Your task to perform on an android device: change keyboard looks Image 0: 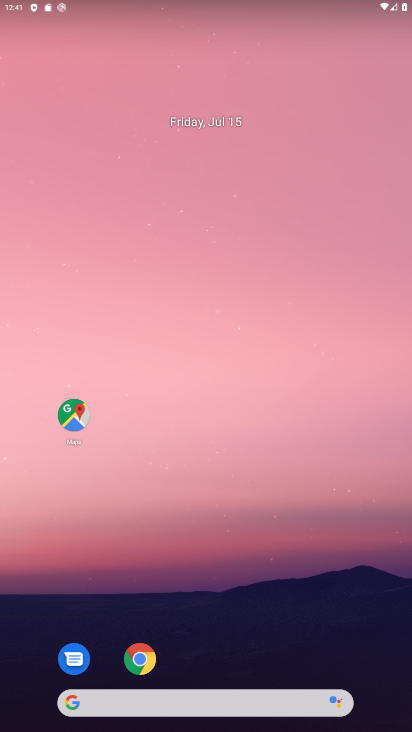
Step 0: drag from (201, 660) to (219, 159)
Your task to perform on an android device: change keyboard looks Image 1: 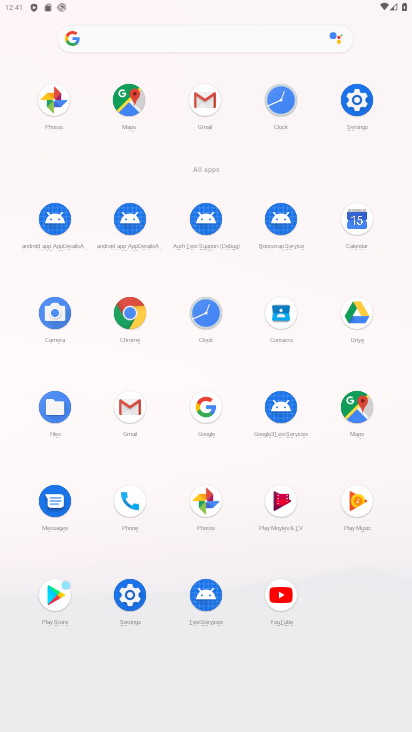
Step 1: click (357, 100)
Your task to perform on an android device: change keyboard looks Image 2: 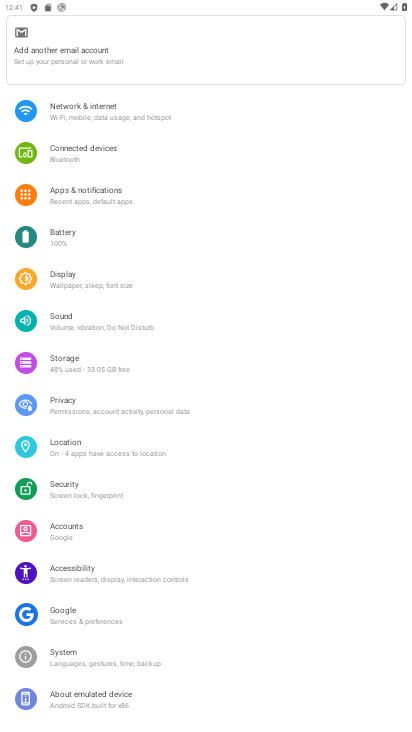
Step 2: click (75, 665)
Your task to perform on an android device: change keyboard looks Image 3: 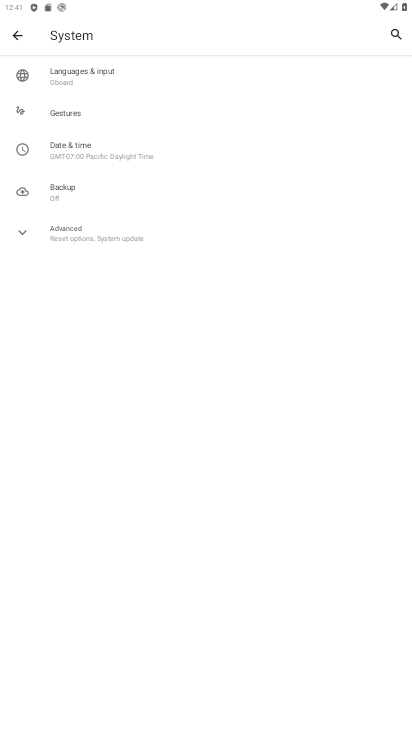
Step 3: click (91, 82)
Your task to perform on an android device: change keyboard looks Image 4: 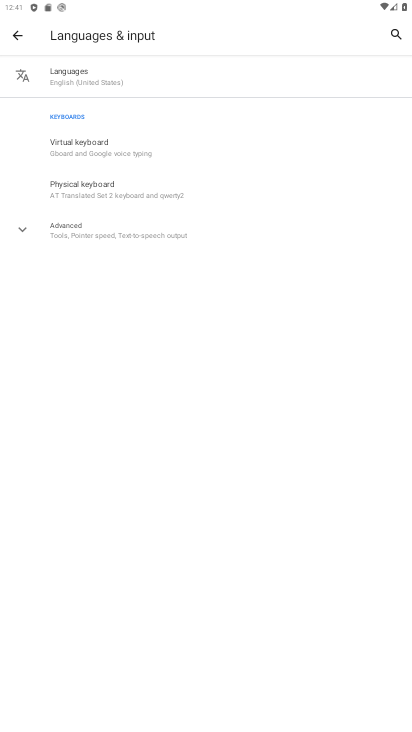
Step 4: click (91, 141)
Your task to perform on an android device: change keyboard looks Image 5: 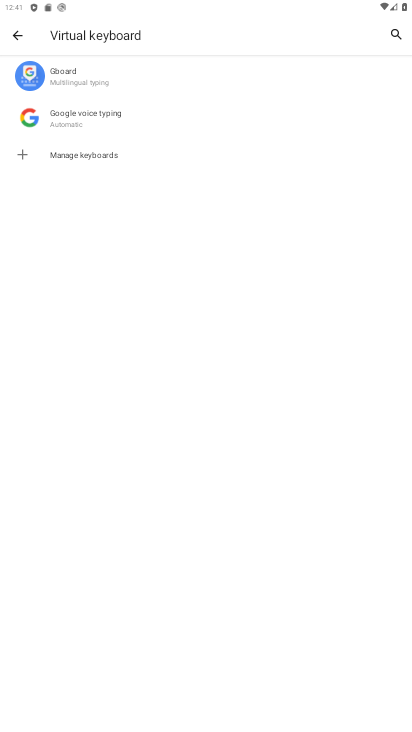
Step 5: click (83, 79)
Your task to perform on an android device: change keyboard looks Image 6: 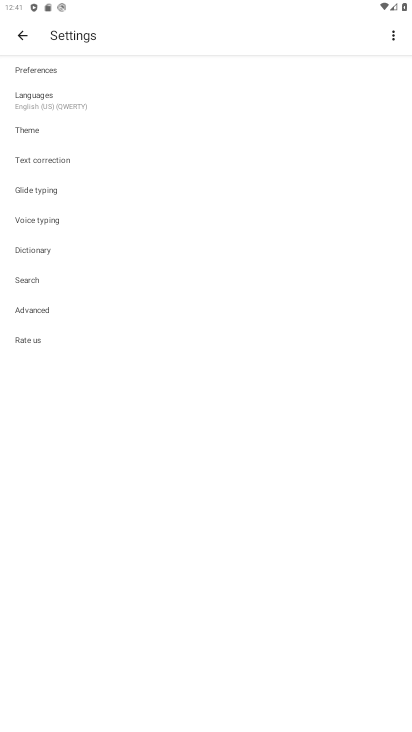
Step 6: click (42, 140)
Your task to perform on an android device: change keyboard looks Image 7: 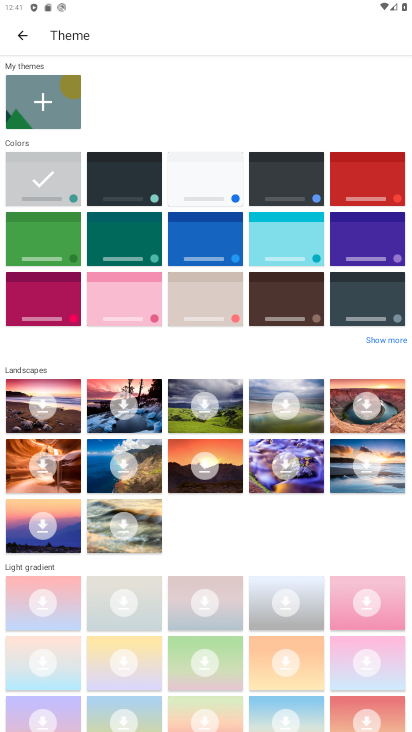
Step 7: click (118, 176)
Your task to perform on an android device: change keyboard looks Image 8: 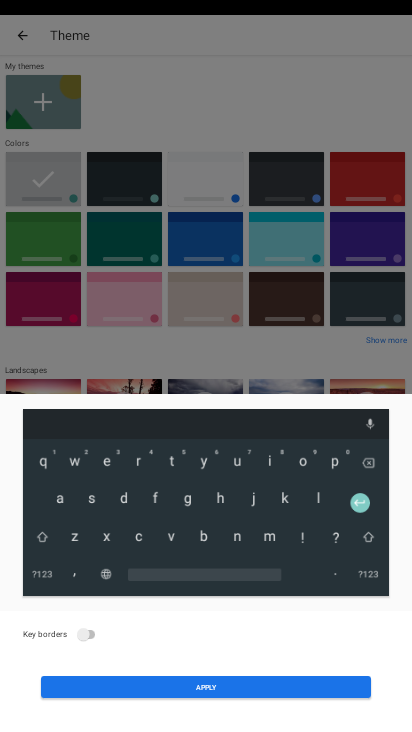
Step 8: click (211, 695)
Your task to perform on an android device: change keyboard looks Image 9: 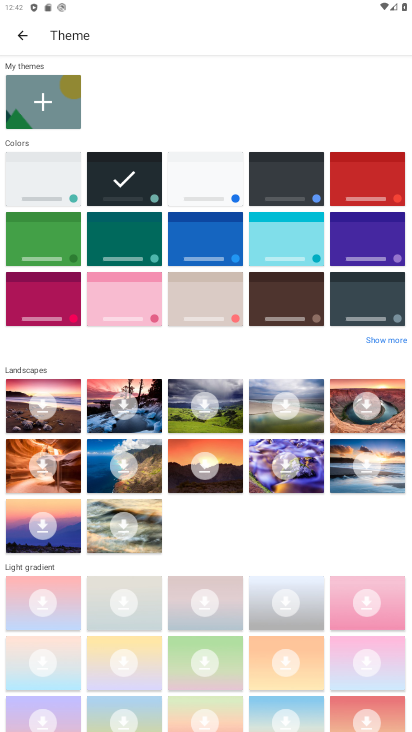
Step 9: task complete